Your task to perform on an android device: find photos in the google photos app Image 0: 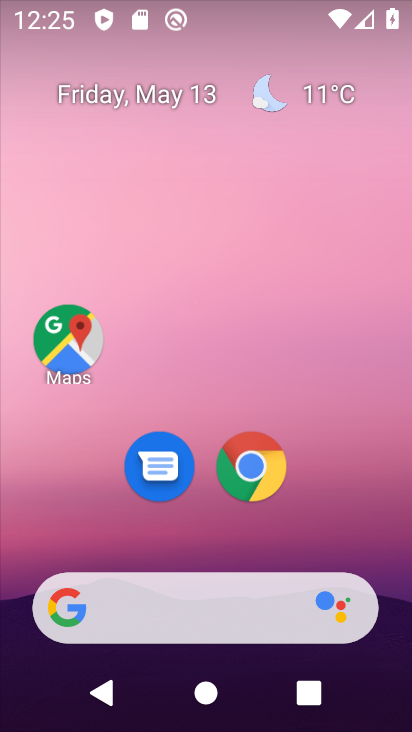
Step 0: drag from (212, 544) to (206, 43)
Your task to perform on an android device: find photos in the google photos app Image 1: 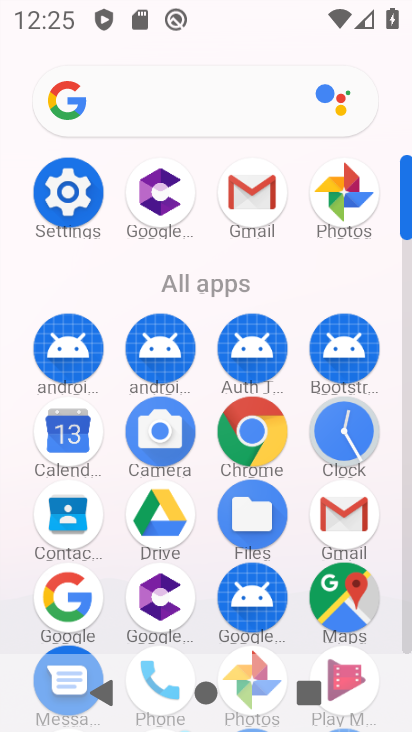
Step 1: click (344, 206)
Your task to perform on an android device: find photos in the google photos app Image 2: 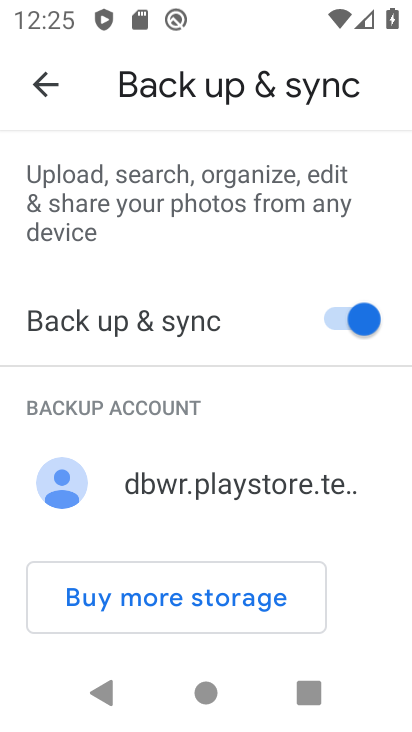
Step 2: click (35, 98)
Your task to perform on an android device: find photos in the google photos app Image 3: 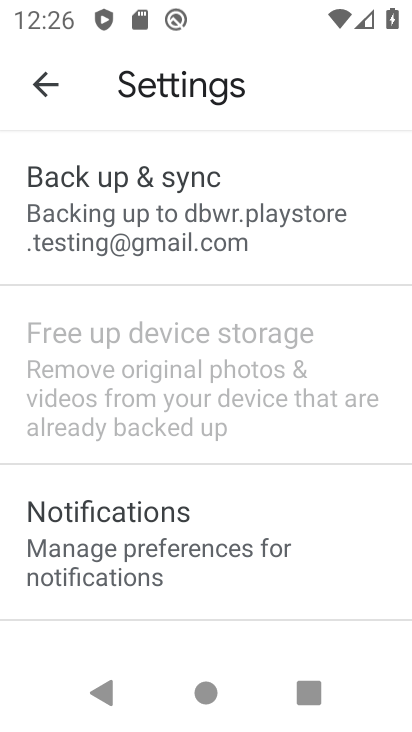
Step 3: click (42, 83)
Your task to perform on an android device: find photos in the google photos app Image 4: 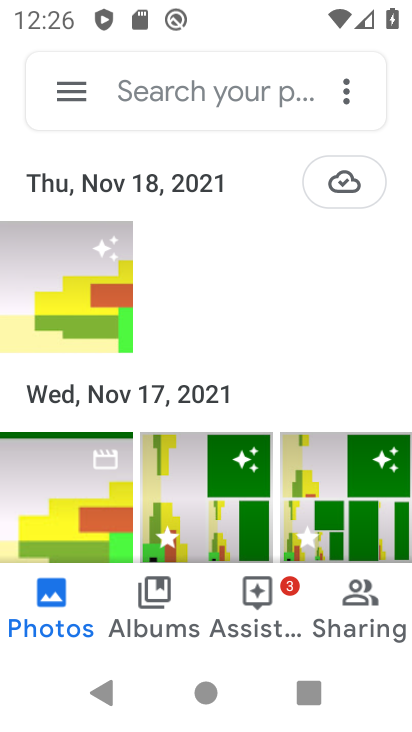
Step 4: task complete